Your task to perform on an android device: show emergency info Image 0: 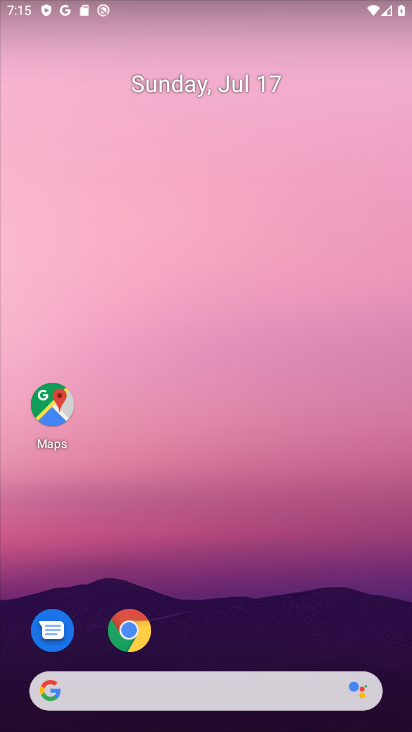
Step 0: drag from (188, 544) to (210, 138)
Your task to perform on an android device: show emergency info Image 1: 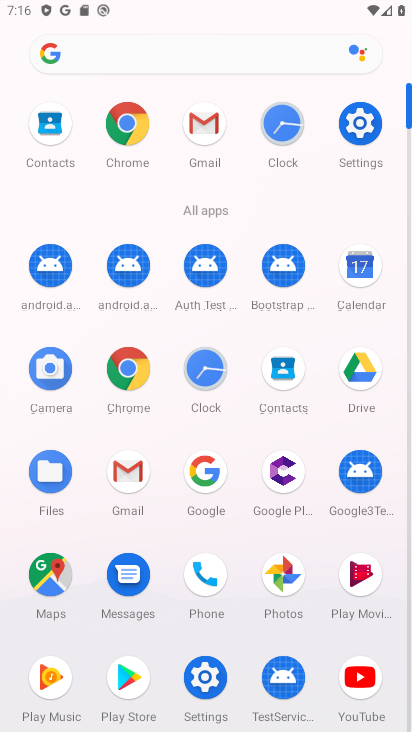
Step 1: click (357, 121)
Your task to perform on an android device: show emergency info Image 2: 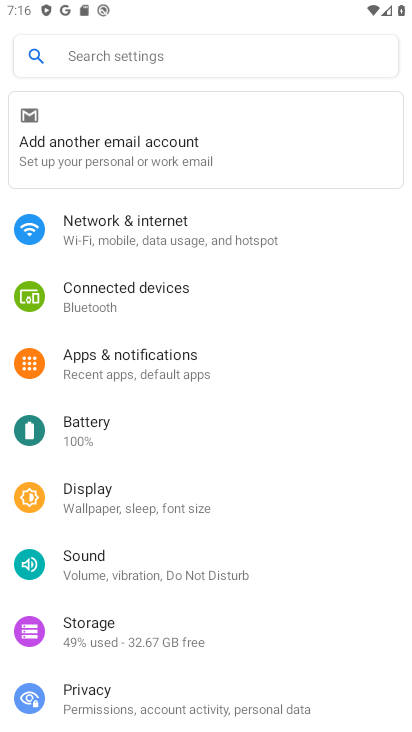
Step 2: drag from (188, 578) to (187, 155)
Your task to perform on an android device: show emergency info Image 3: 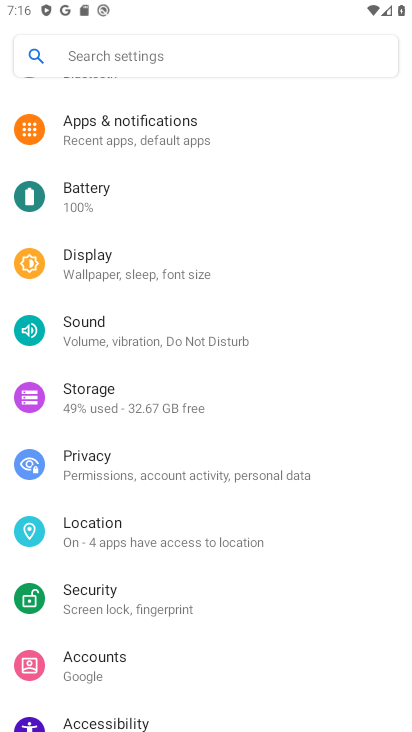
Step 3: drag from (113, 617) to (125, 462)
Your task to perform on an android device: show emergency info Image 4: 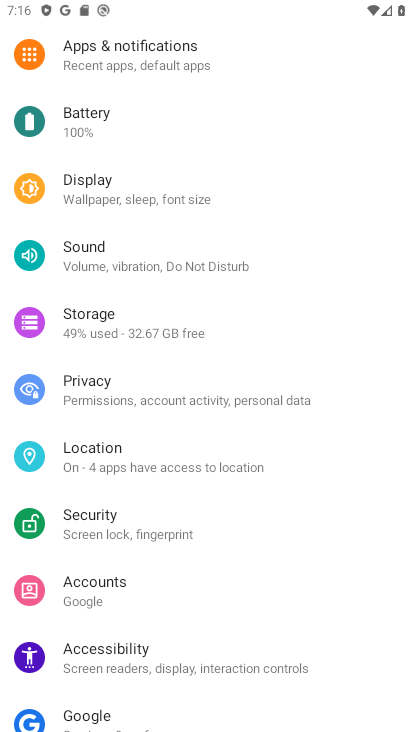
Step 4: drag from (148, 521) to (282, 81)
Your task to perform on an android device: show emergency info Image 5: 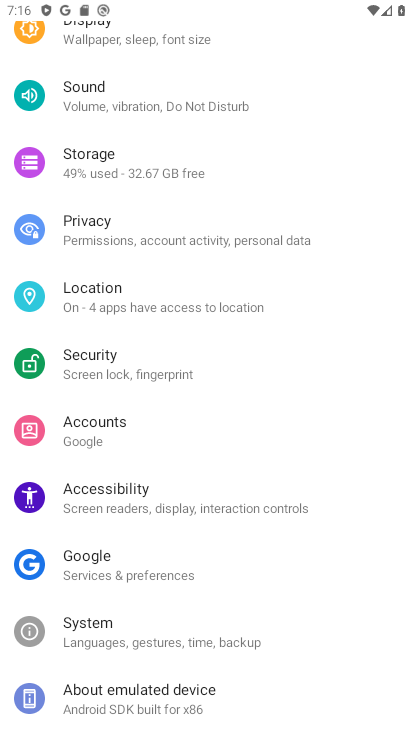
Step 5: click (92, 705)
Your task to perform on an android device: show emergency info Image 6: 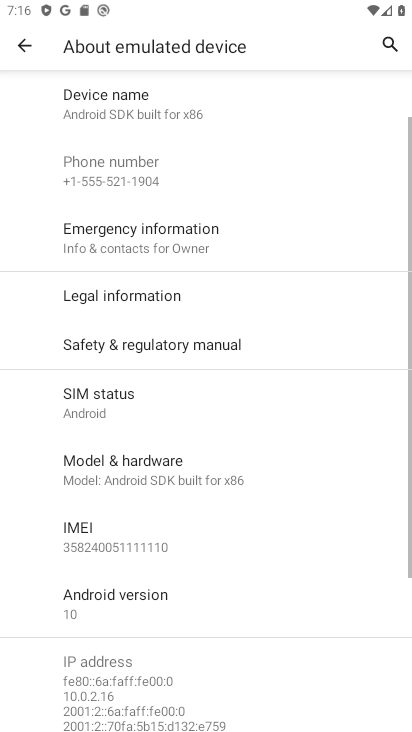
Step 6: drag from (194, 684) to (227, 436)
Your task to perform on an android device: show emergency info Image 7: 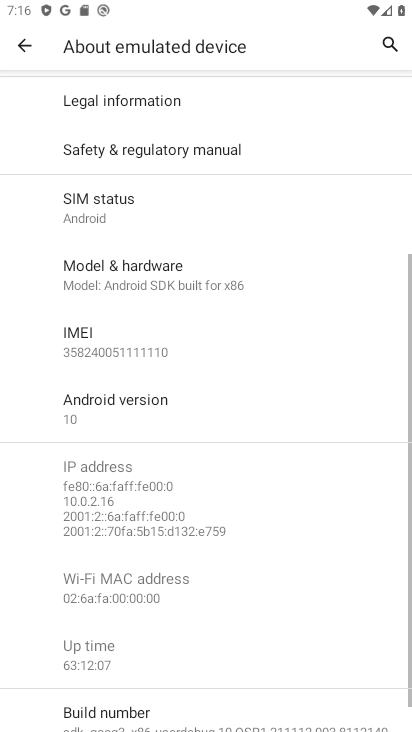
Step 7: drag from (214, 218) to (192, 407)
Your task to perform on an android device: show emergency info Image 8: 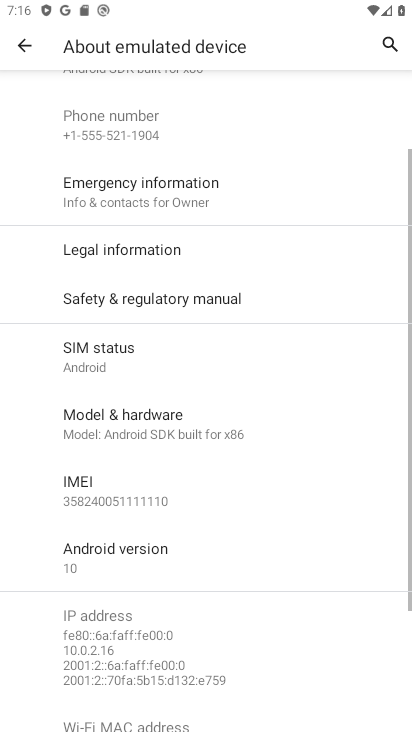
Step 8: click (166, 197)
Your task to perform on an android device: show emergency info Image 9: 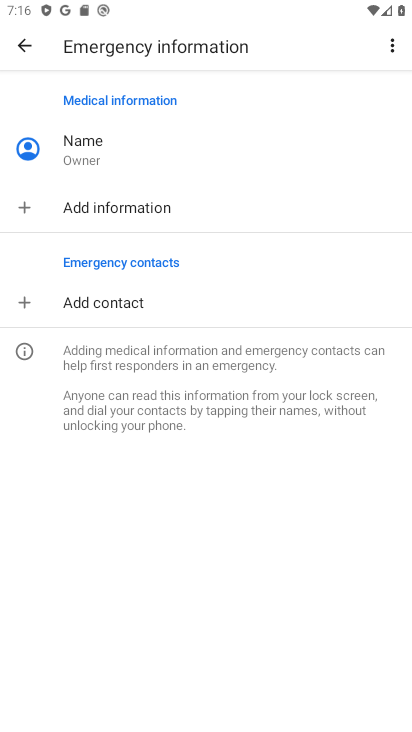
Step 9: task complete